Your task to perform on an android device: What's the weather going to be tomorrow? Image 0: 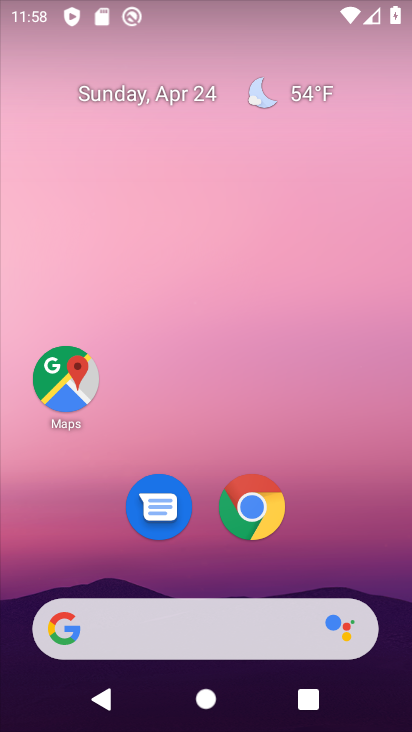
Step 0: drag from (315, 541) to (245, 0)
Your task to perform on an android device: What's the weather going to be tomorrow? Image 1: 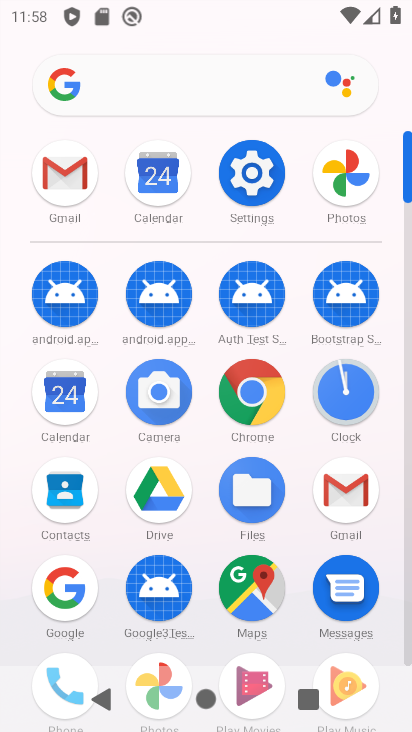
Step 1: drag from (10, 563) to (10, 340)
Your task to perform on an android device: What's the weather going to be tomorrow? Image 2: 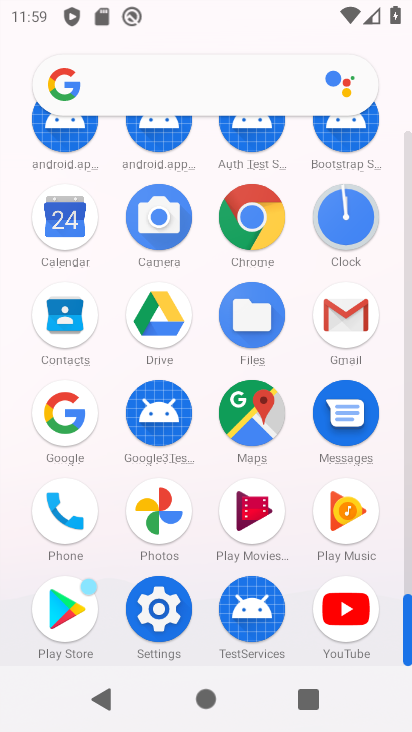
Step 2: click (157, 79)
Your task to perform on an android device: What's the weather going to be tomorrow? Image 3: 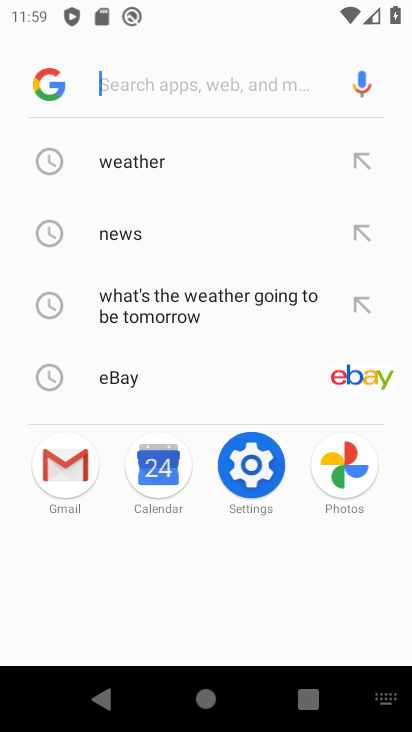
Step 3: type "t's the weather going to be tomorrow"
Your task to perform on an android device: What's the weather going to be tomorrow? Image 4: 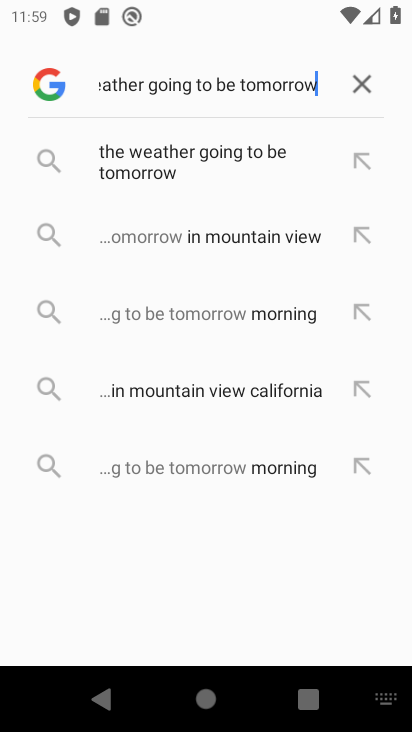
Step 4: click (198, 166)
Your task to perform on an android device: What's the weather going to be tomorrow? Image 5: 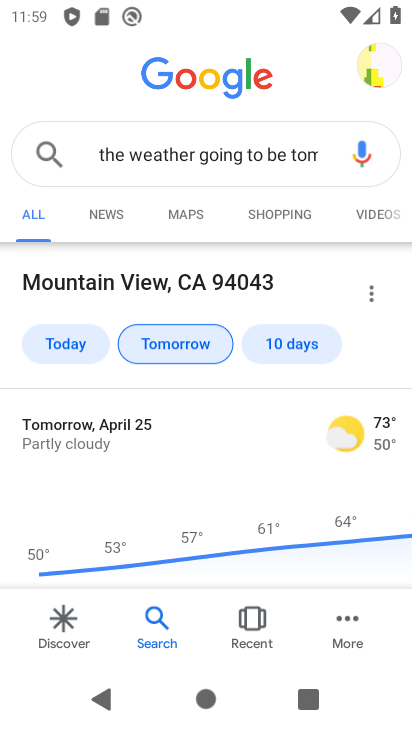
Step 5: task complete